Your task to perform on an android device: How much does a 3 bedroom apartment rent for in Seattle? Image 0: 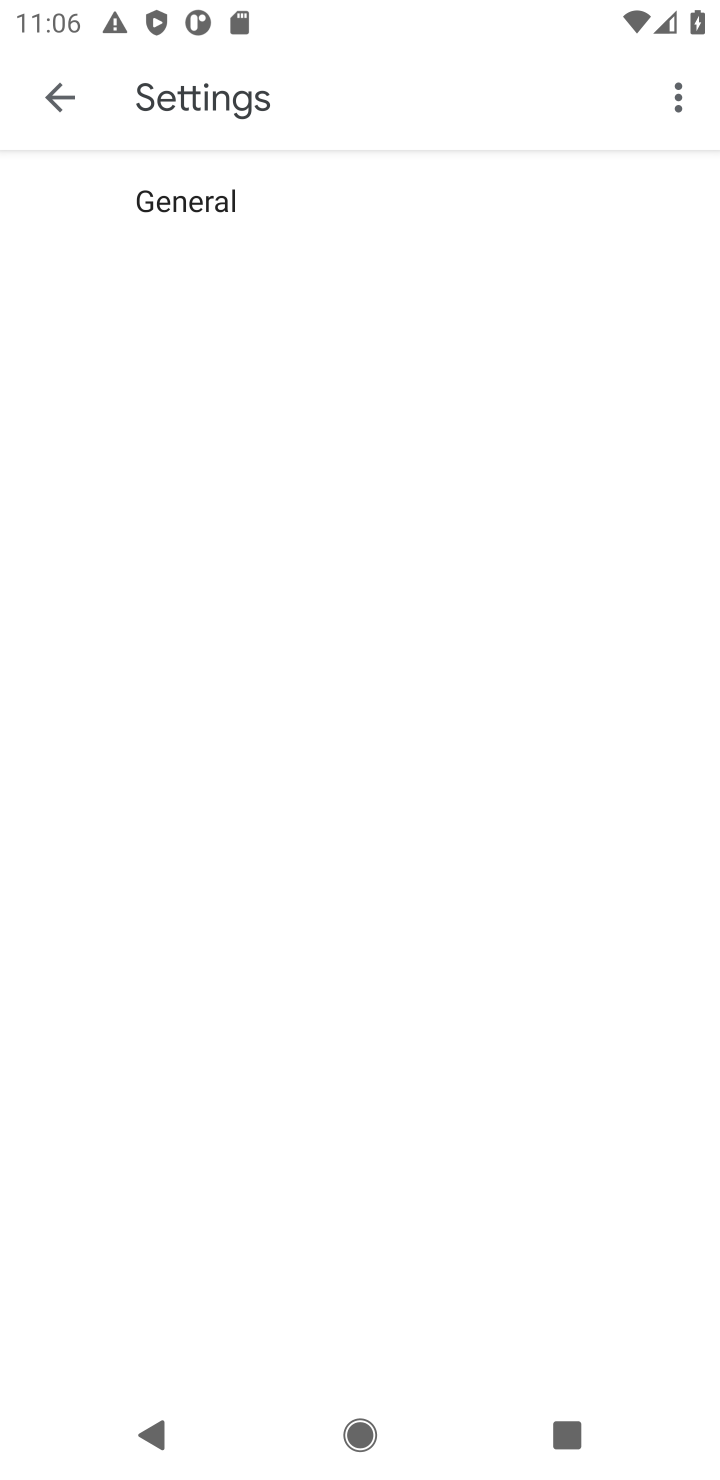
Step 0: press home button
Your task to perform on an android device: How much does a 3 bedroom apartment rent for in Seattle? Image 1: 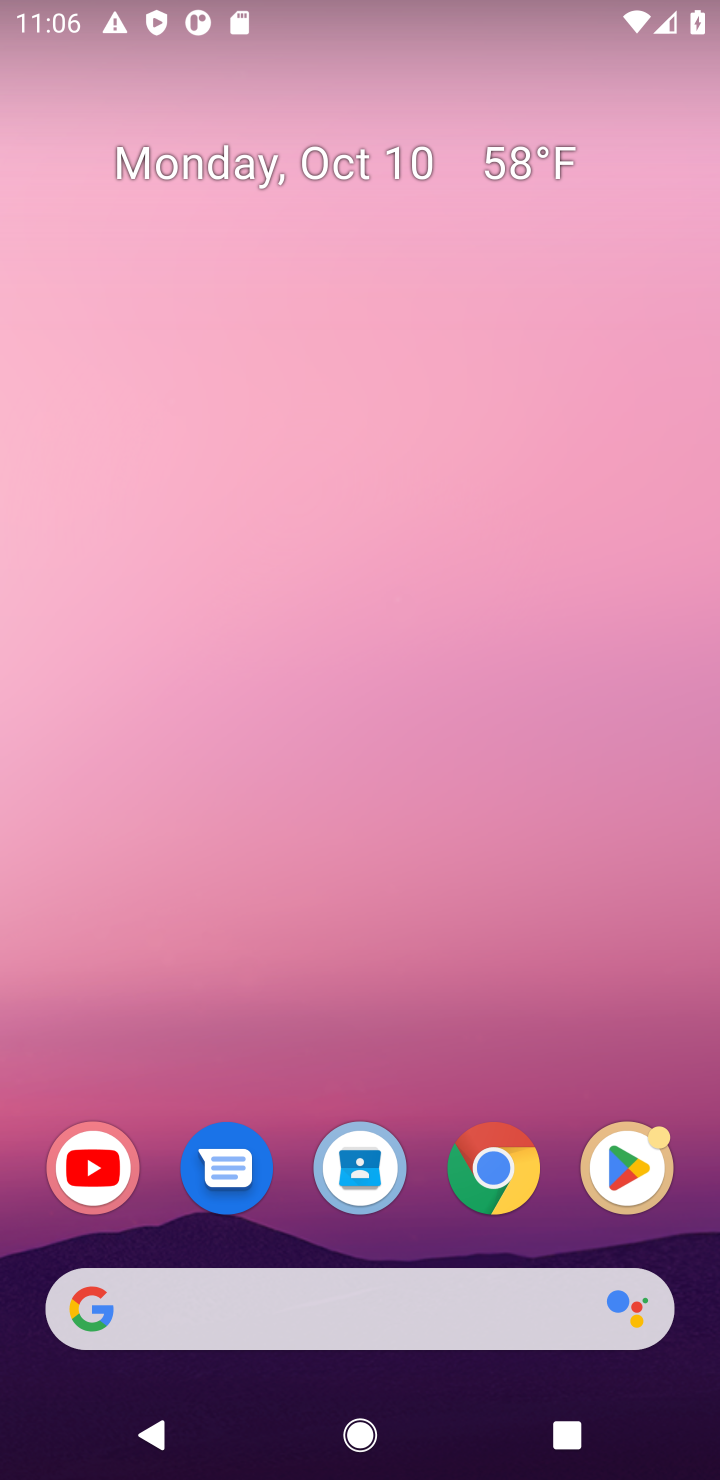
Step 1: click (222, 1308)
Your task to perform on an android device: How much does a 3 bedroom apartment rent for in Seattle? Image 2: 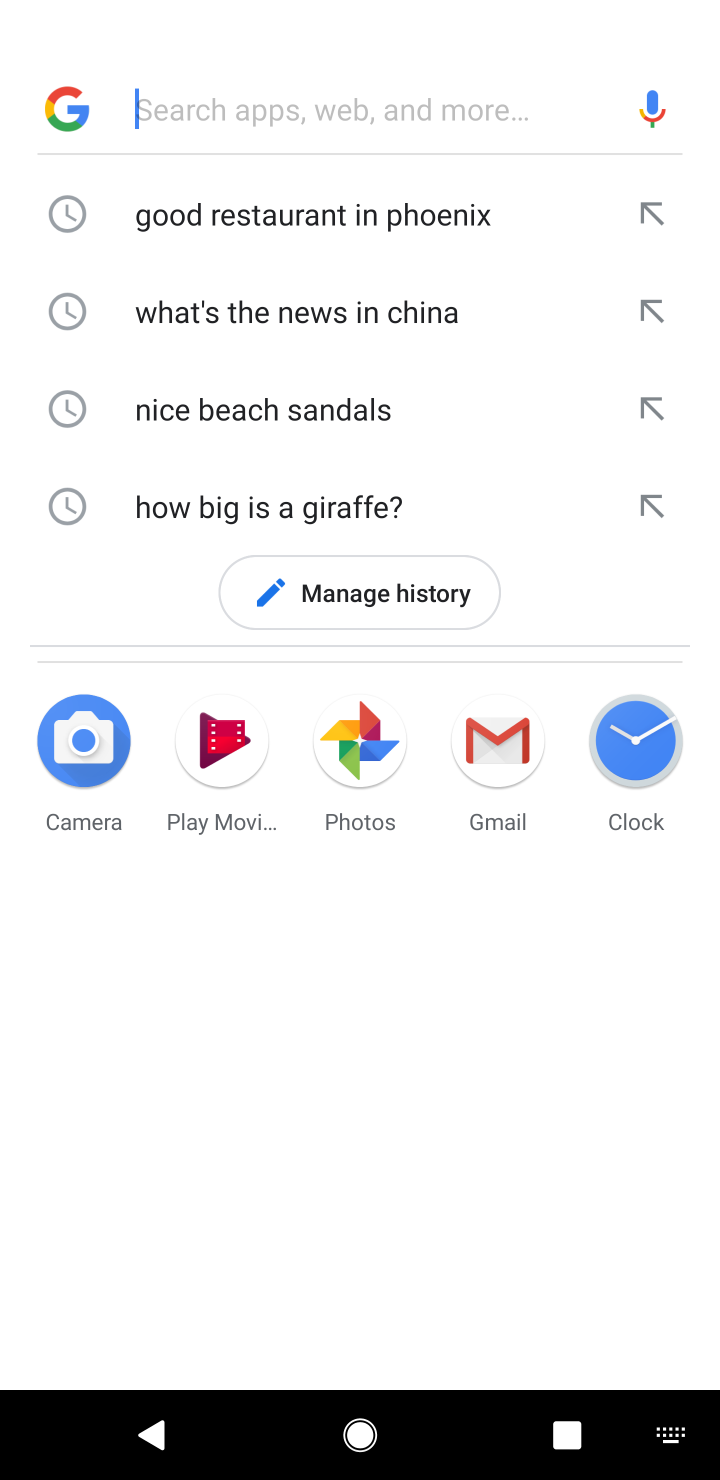
Step 2: type "3 bedroom apartment rent for in Seattle"
Your task to perform on an android device: How much does a 3 bedroom apartment rent for in Seattle? Image 3: 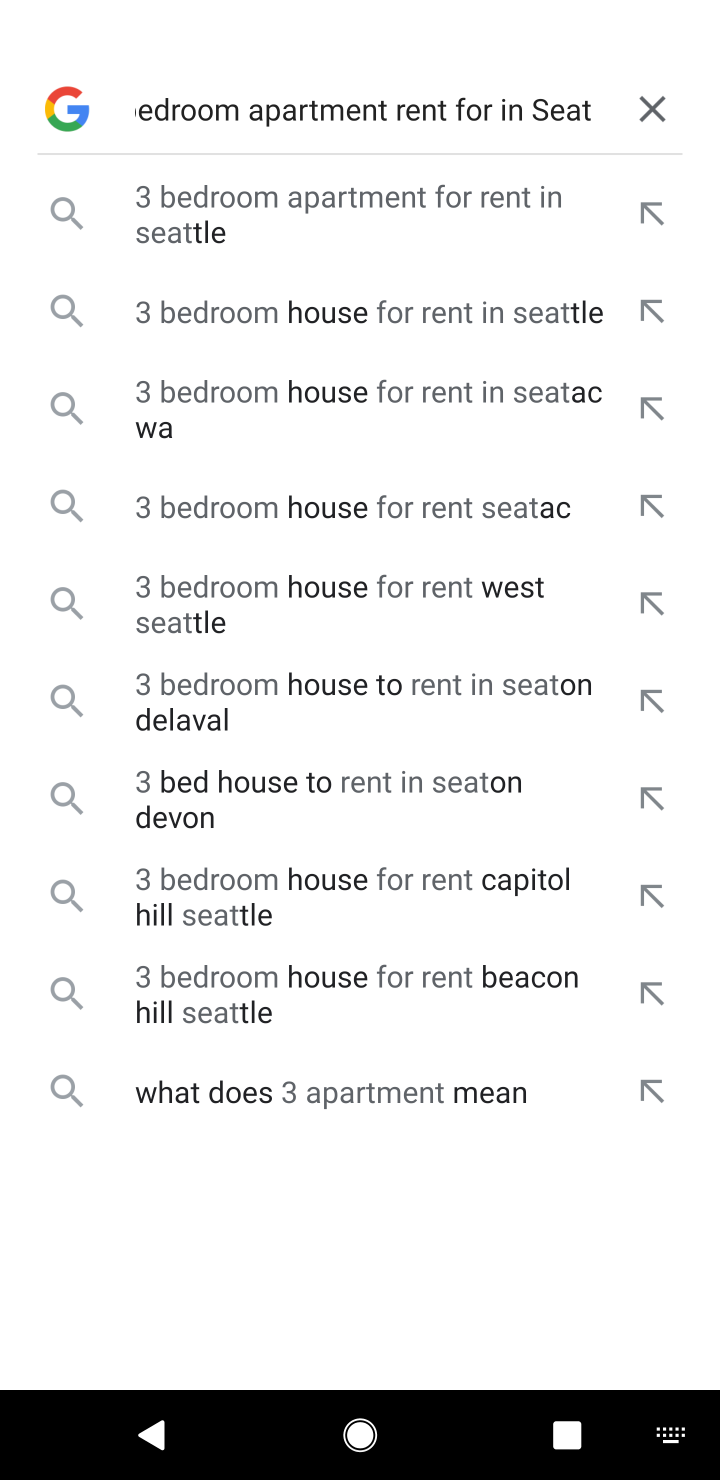
Step 3: click (324, 212)
Your task to perform on an android device: How much does a 3 bedroom apartment rent for in Seattle? Image 4: 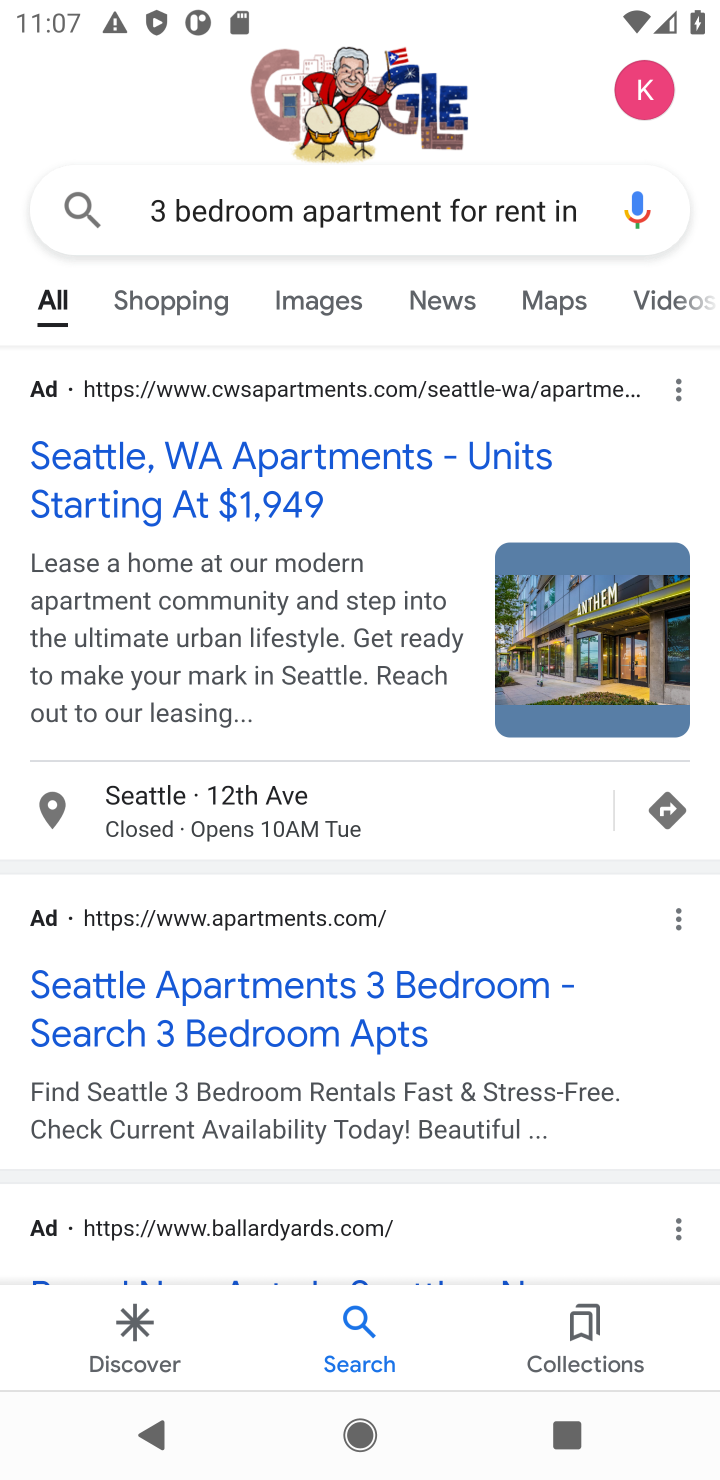
Step 4: drag from (416, 1038) to (388, 296)
Your task to perform on an android device: How much does a 3 bedroom apartment rent for in Seattle? Image 5: 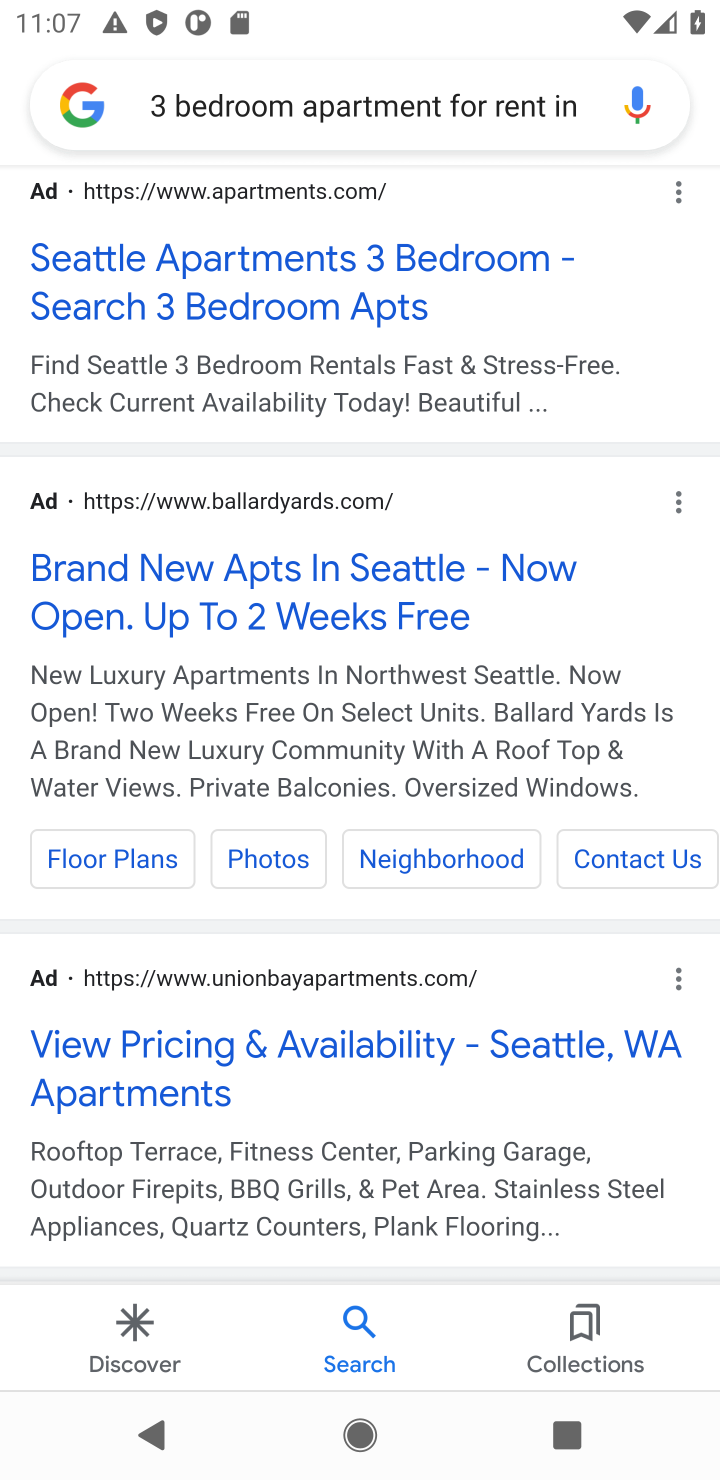
Step 5: drag from (399, 1026) to (397, 459)
Your task to perform on an android device: How much does a 3 bedroom apartment rent for in Seattle? Image 6: 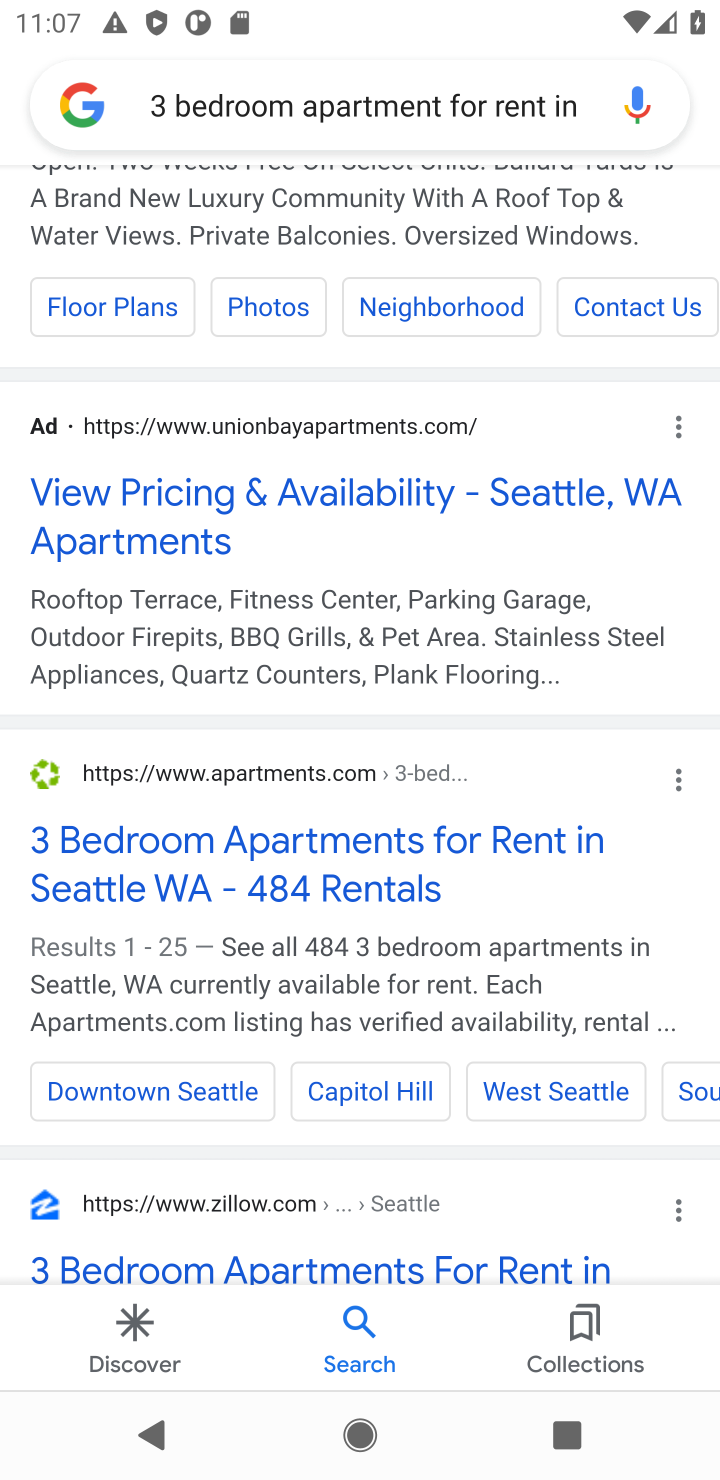
Step 6: click (252, 869)
Your task to perform on an android device: How much does a 3 bedroom apartment rent for in Seattle? Image 7: 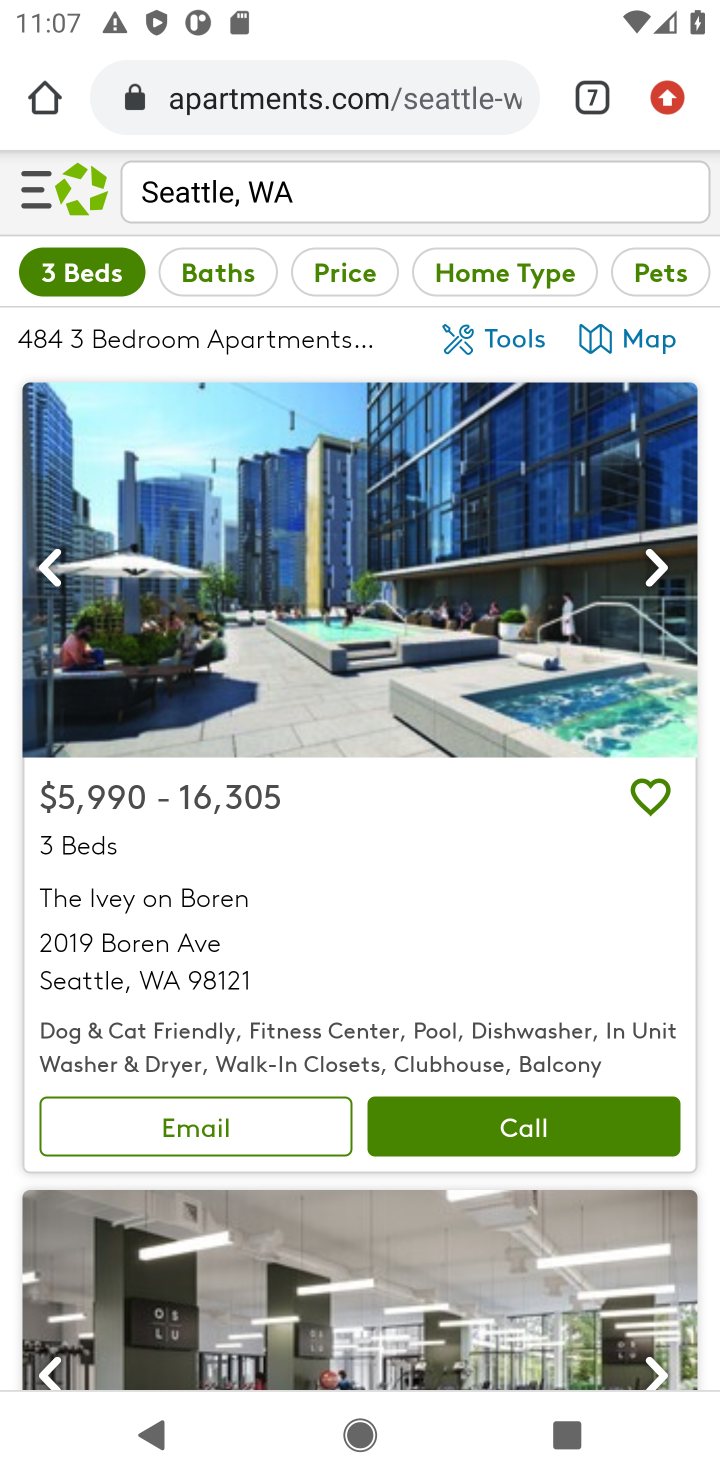
Step 7: task complete